Your task to perform on an android device: change notifications settings Image 0: 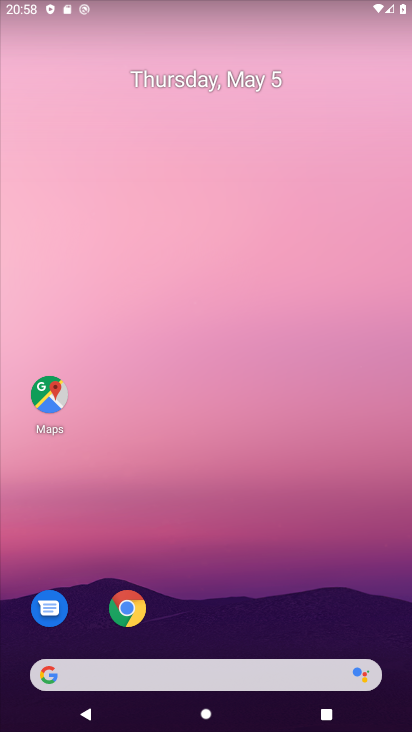
Step 0: drag from (345, 662) to (255, 0)
Your task to perform on an android device: change notifications settings Image 1: 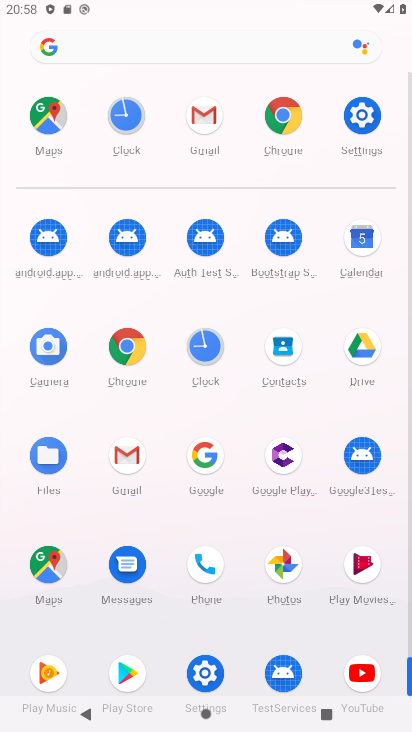
Step 1: click (207, 669)
Your task to perform on an android device: change notifications settings Image 2: 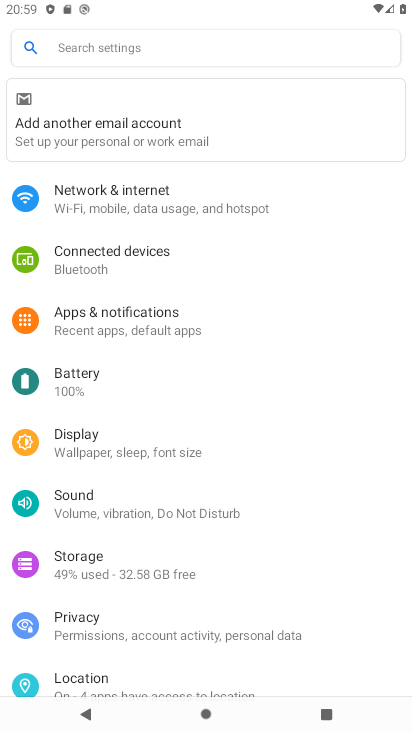
Step 2: click (162, 323)
Your task to perform on an android device: change notifications settings Image 3: 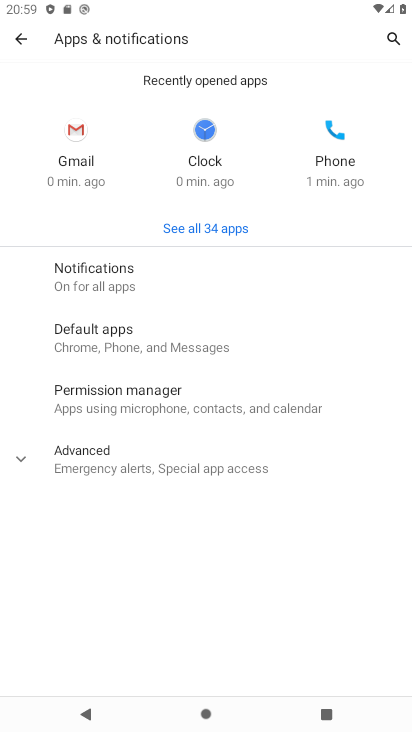
Step 3: click (157, 284)
Your task to perform on an android device: change notifications settings Image 4: 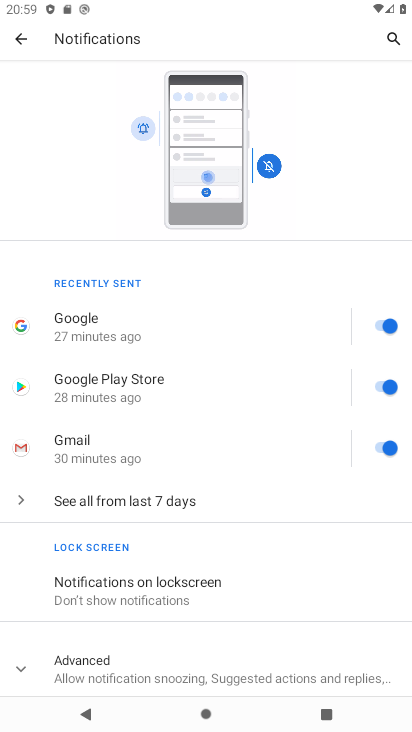
Step 4: drag from (223, 625) to (251, 159)
Your task to perform on an android device: change notifications settings Image 5: 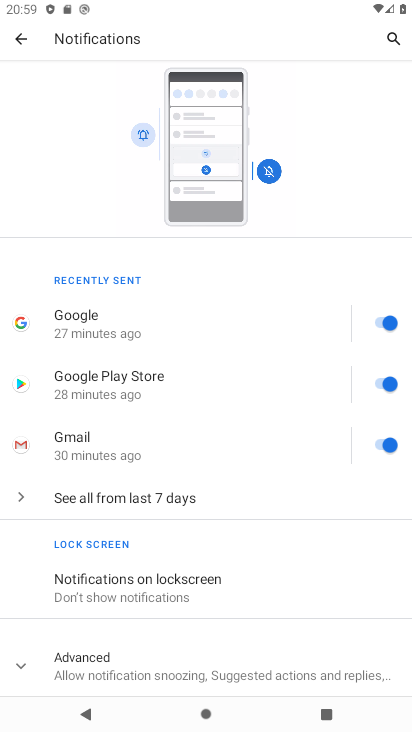
Step 5: click (264, 167)
Your task to perform on an android device: change notifications settings Image 6: 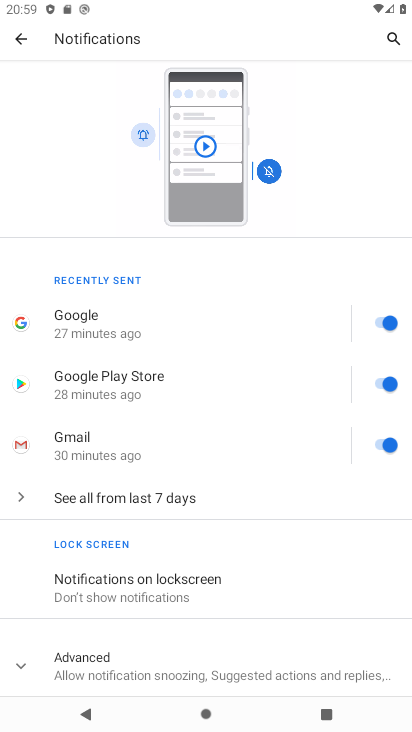
Step 6: click (143, 134)
Your task to perform on an android device: change notifications settings Image 7: 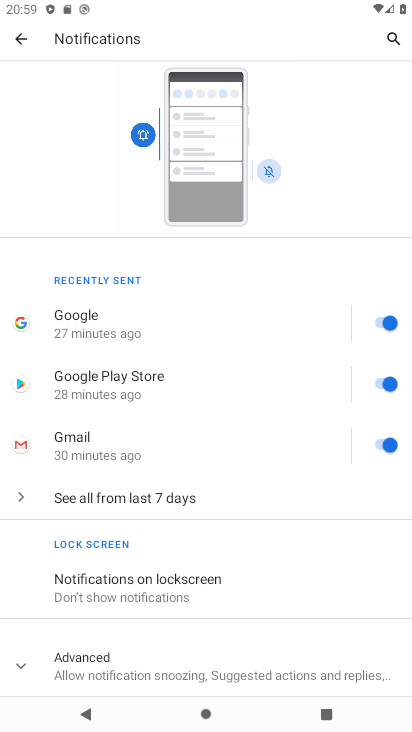
Step 7: task complete